Your task to perform on an android device: open wifi settings Image 0: 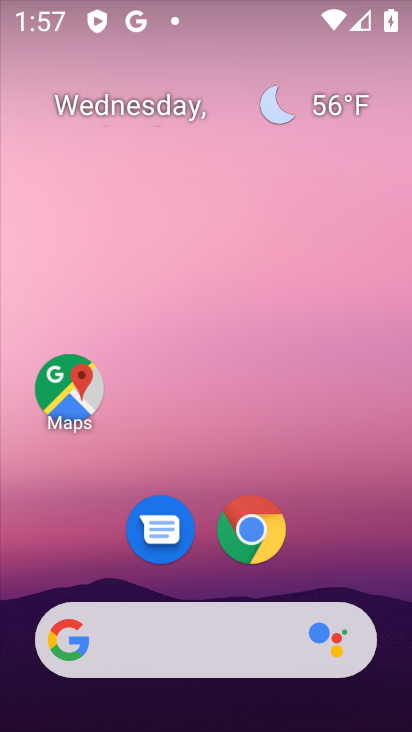
Step 0: drag from (314, 12) to (273, 199)
Your task to perform on an android device: open wifi settings Image 1: 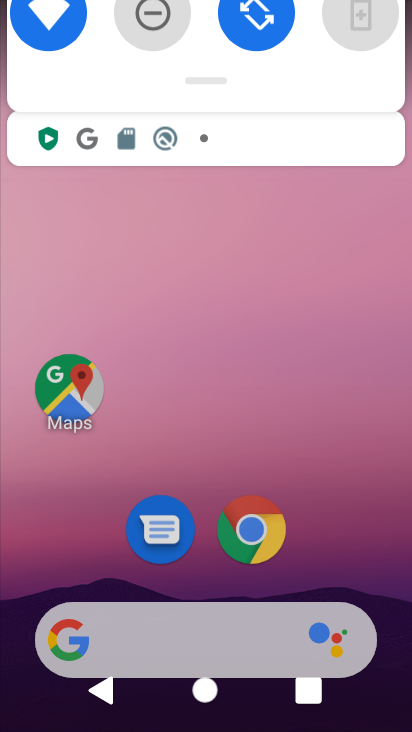
Step 1: drag from (273, 201) to (268, 239)
Your task to perform on an android device: open wifi settings Image 2: 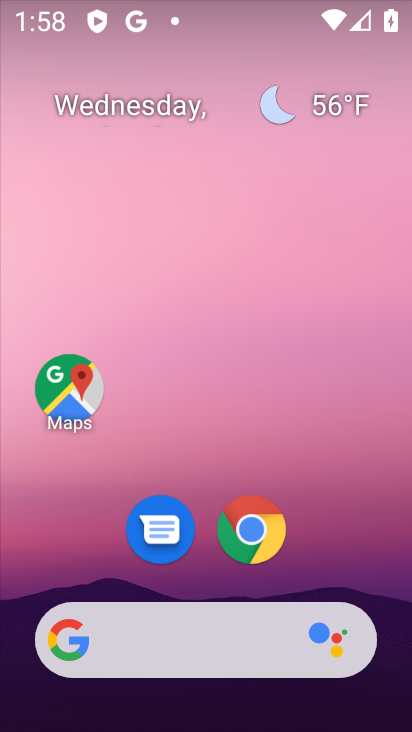
Step 2: drag from (229, 8) to (172, 468)
Your task to perform on an android device: open wifi settings Image 3: 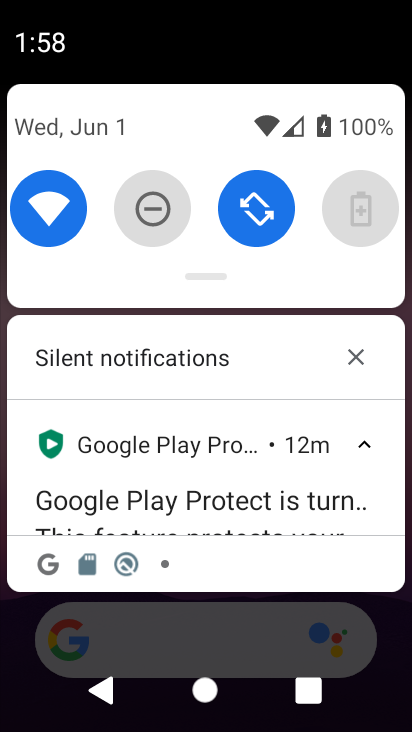
Step 3: click (56, 215)
Your task to perform on an android device: open wifi settings Image 4: 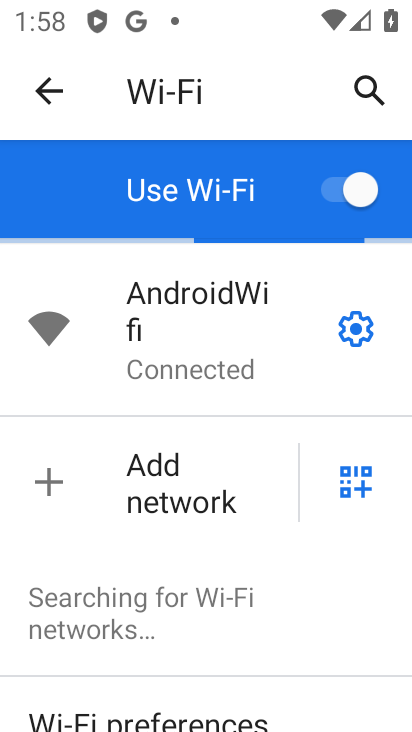
Step 4: task complete